Your task to perform on an android device: Open display settings Image 0: 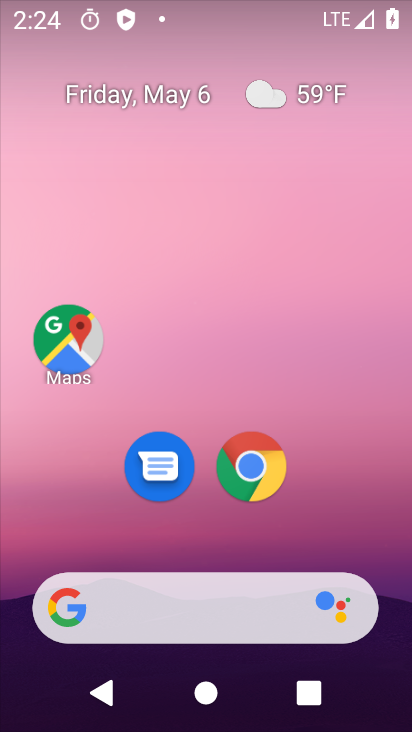
Step 0: drag from (342, 492) to (311, 79)
Your task to perform on an android device: Open display settings Image 1: 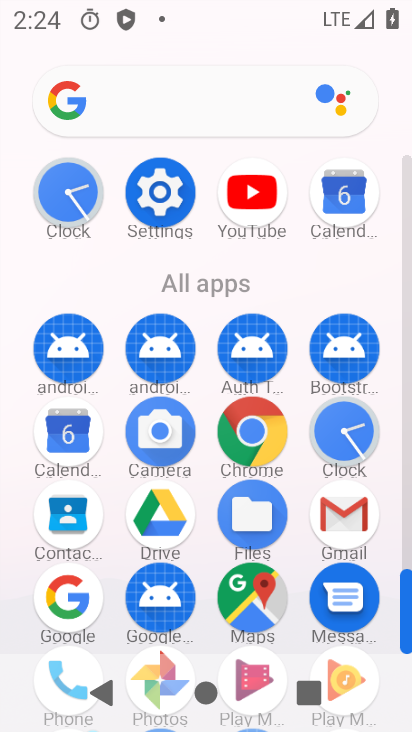
Step 1: click (168, 186)
Your task to perform on an android device: Open display settings Image 2: 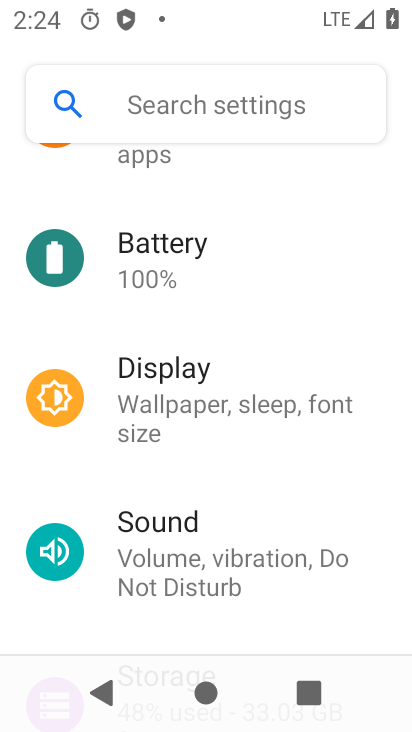
Step 2: drag from (243, 551) to (234, 405)
Your task to perform on an android device: Open display settings Image 3: 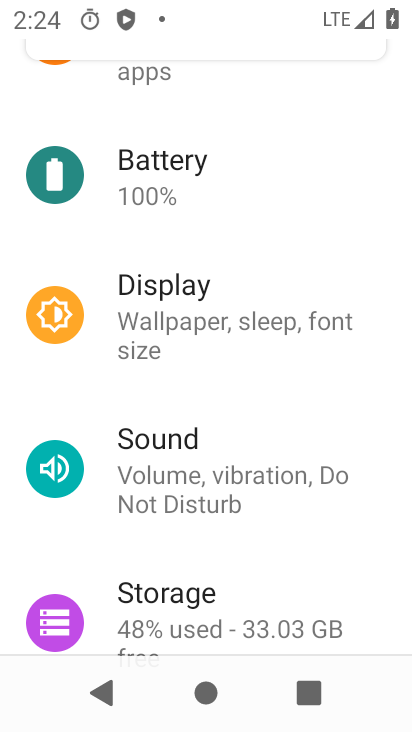
Step 3: click (219, 300)
Your task to perform on an android device: Open display settings Image 4: 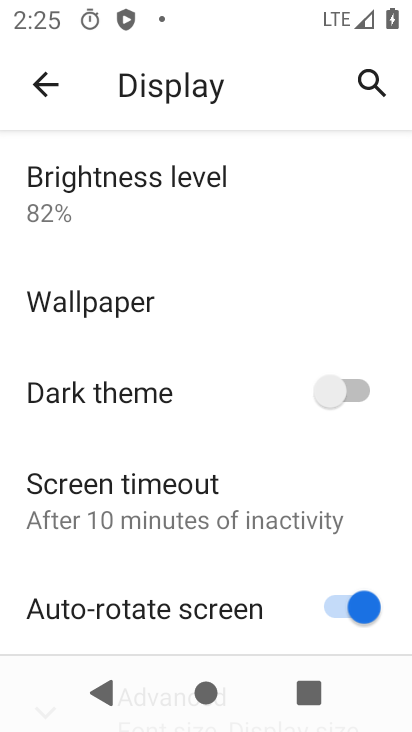
Step 4: task complete